Your task to perform on an android device: stop showing notifications on the lock screen Image 0: 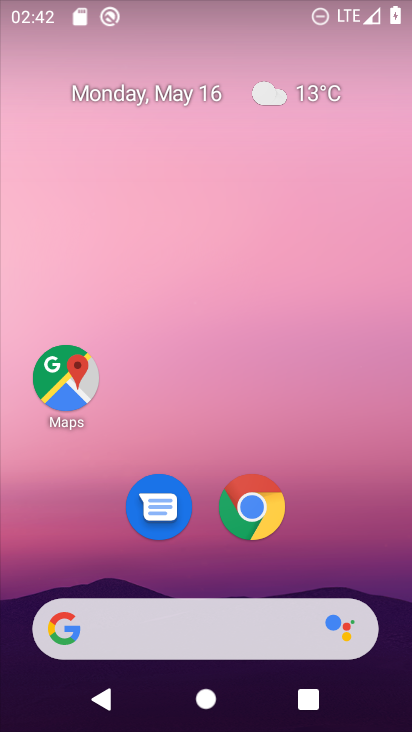
Step 0: drag from (299, 427) to (213, 49)
Your task to perform on an android device: stop showing notifications on the lock screen Image 1: 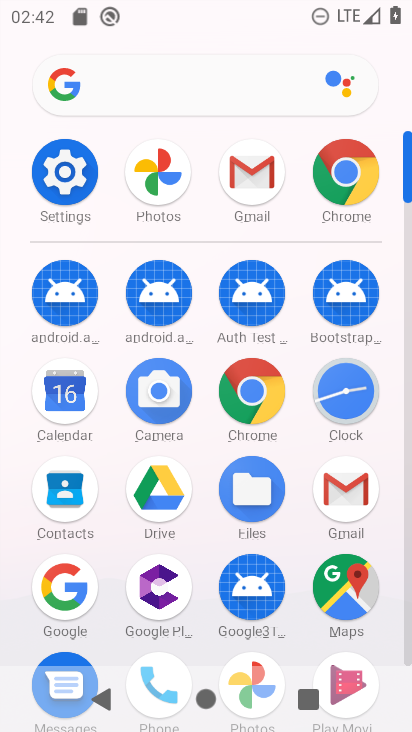
Step 1: click (69, 171)
Your task to perform on an android device: stop showing notifications on the lock screen Image 2: 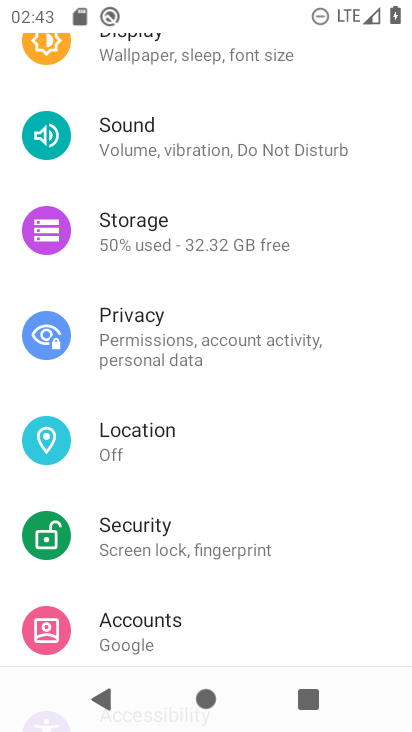
Step 2: drag from (232, 203) to (172, 571)
Your task to perform on an android device: stop showing notifications on the lock screen Image 3: 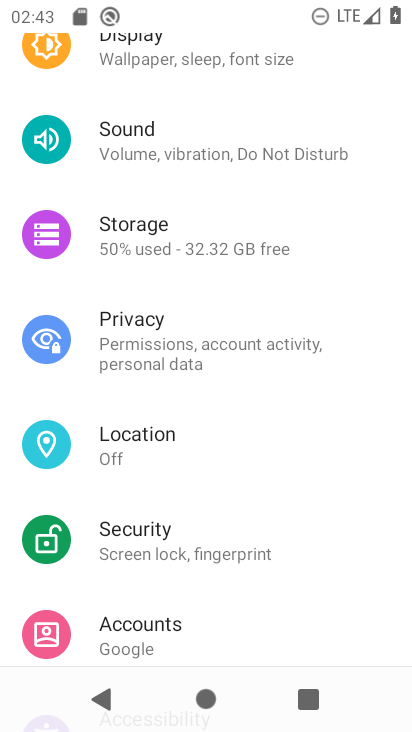
Step 3: drag from (243, 162) to (205, 634)
Your task to perform on an android device: stop showing notifications on the lock screen Image 4: 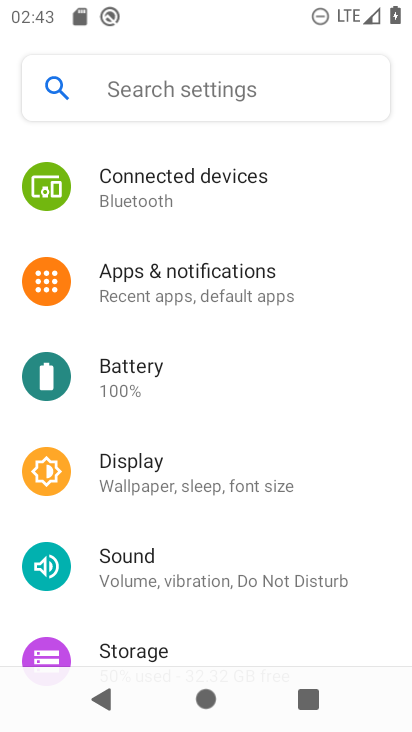
Step 4: click (204, 282)
Your task to perform on an android device: stop showing notifications on the lock screen Image 5: 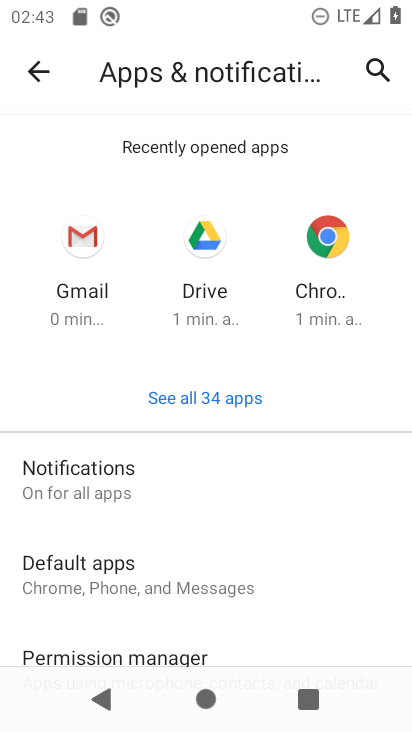
Step 5: click (201, 490)
Your task to perform on an android device: stop showing notifications on the lock screen Image 6: 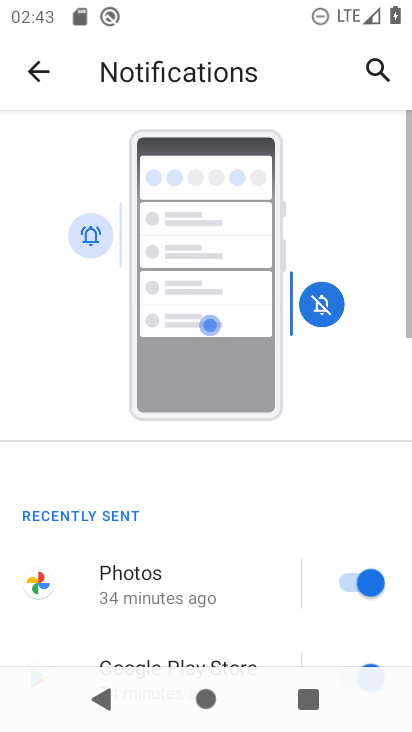
Step 6: drag from (280, 487) to (290, 114)
Your task to perform on an android device: stop showing notifications on the lock screen Image 7: 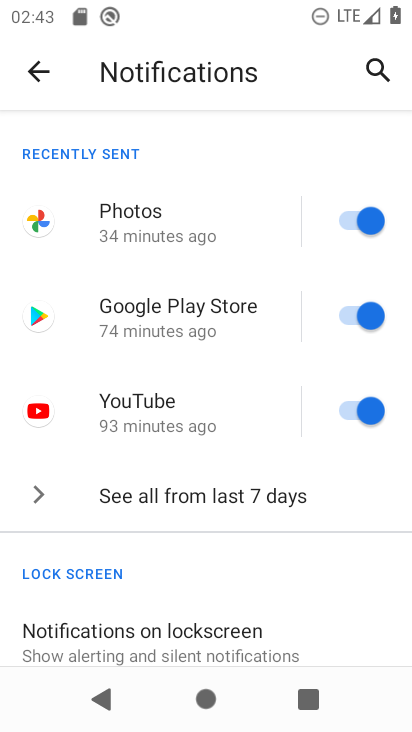
Step 7: click (204, 631)
Your task to perform on an android device: stop showing notifications on the lock screen Image 8: 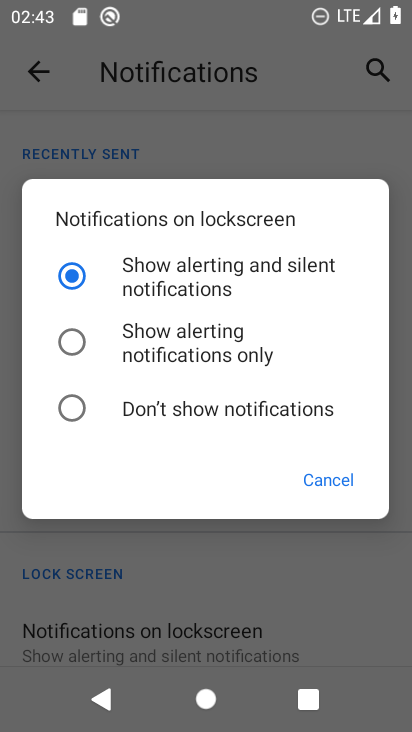
Step 8: click (178, 403)
Your task to perform on an android device: stop showing notifications on the lock screen Image 9: 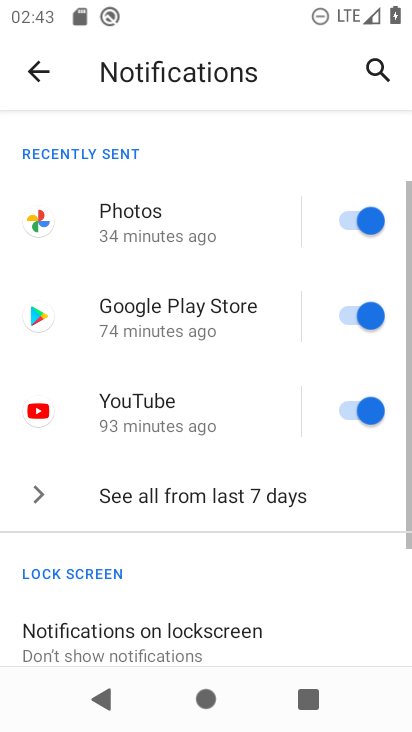
Step 9: task complete